Your task to perform on an android device: manage bookmarks in the chrome app Image 0: 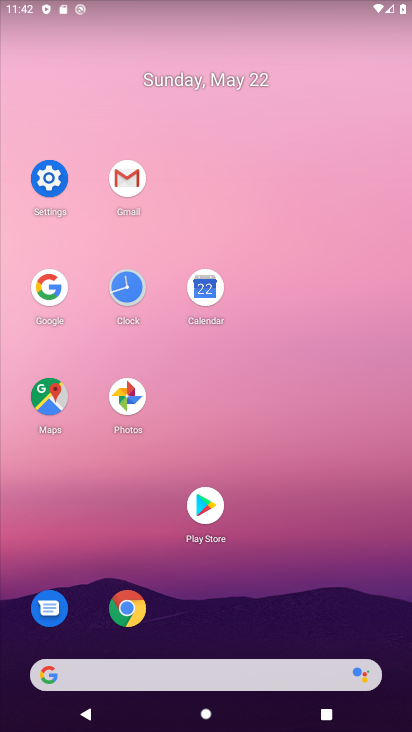
Step 0: click (121, 614)
Your task to perform on an android device: manage bookmarks in the chrome app Image 1: 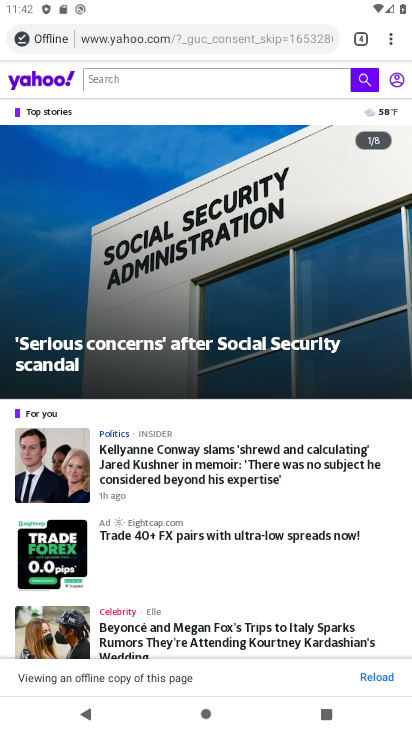
Step 1: click (385, 54)
Your task to perform on an android device: manage bookmarks in the chrome app Image 2: 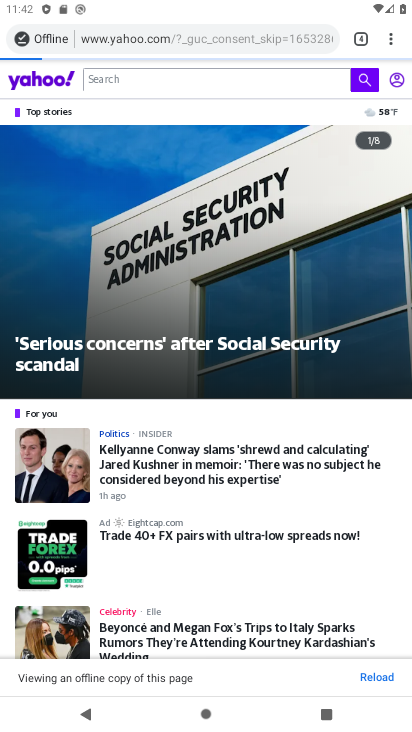
Step 2: click (388, 41)
Your task to perform on an android device: manage bookmarks in the chrome app Image 3: 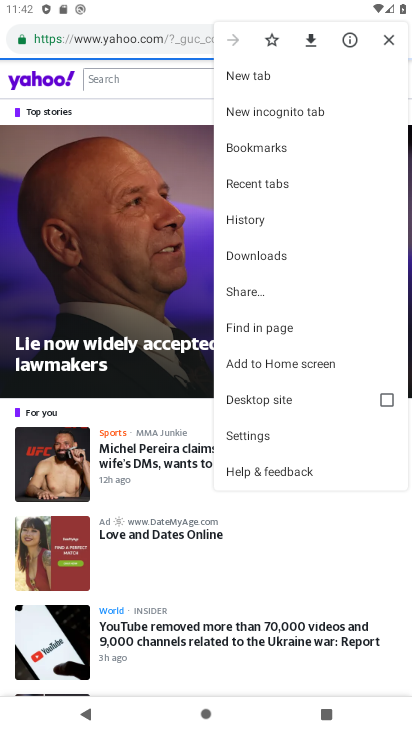
Step 3: click (255, 147)
Your task to perform on an android device: manage bookmarks in the chrome app Image 4: 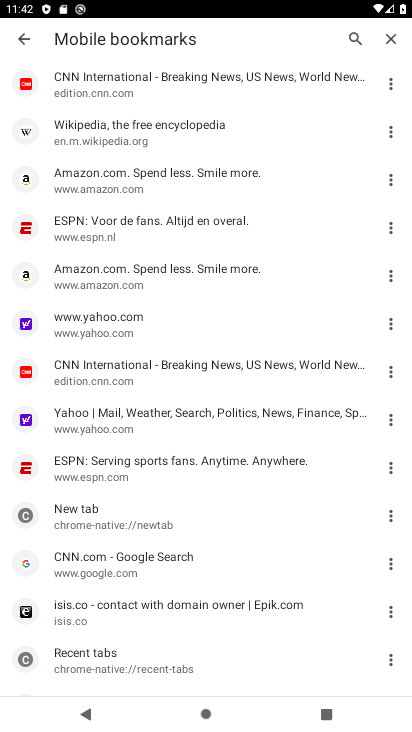
Step 4: click (397, 80)
Your task to perform on an android device: manage bookmarks in the chrome app Image 5: 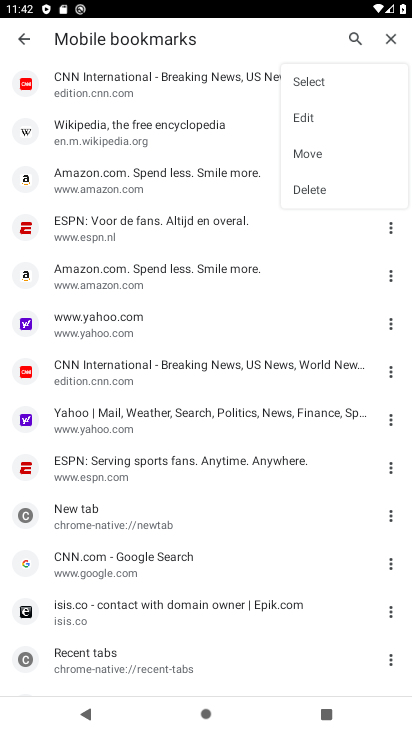
Step 5: click (313, 187)
Your task to perform on an android device: manage bookmarks in the chrome app Image 6: 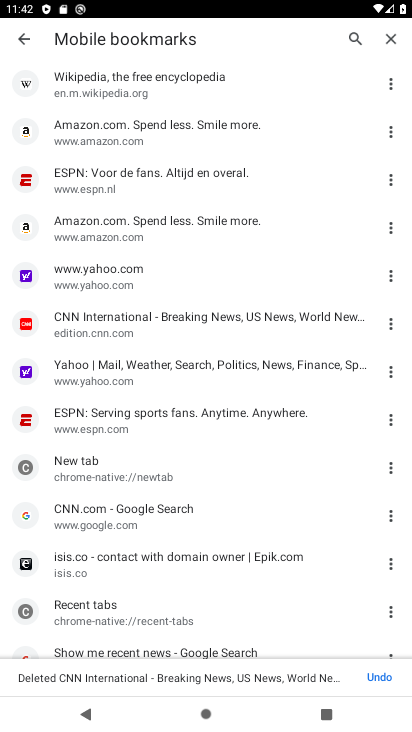
Step 6: task complete